Your task to perform on an android device: What's the weather going to be this weekend? Image 0: 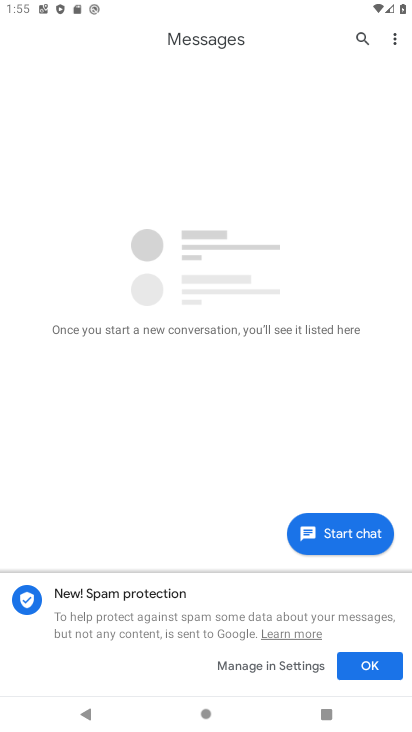
Step 0: press home button
Your task to perform on an android device: What's the weather going to be this weekend? Image 1: 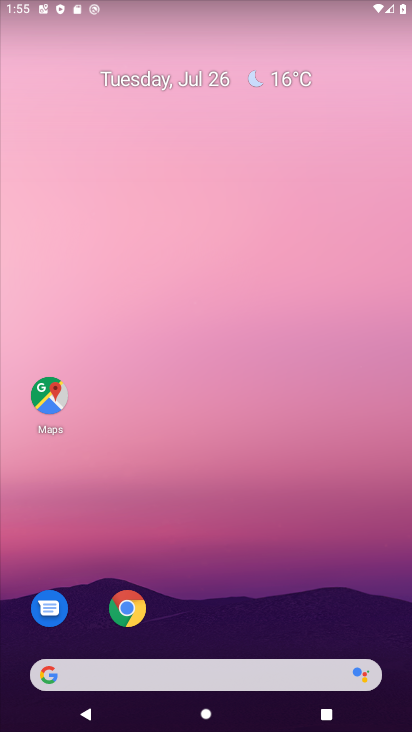
Step 1: drag from (280, 592) to (243, 114)
Your task to perform on an android device: What's the weather going to be this weekend? Image 2: 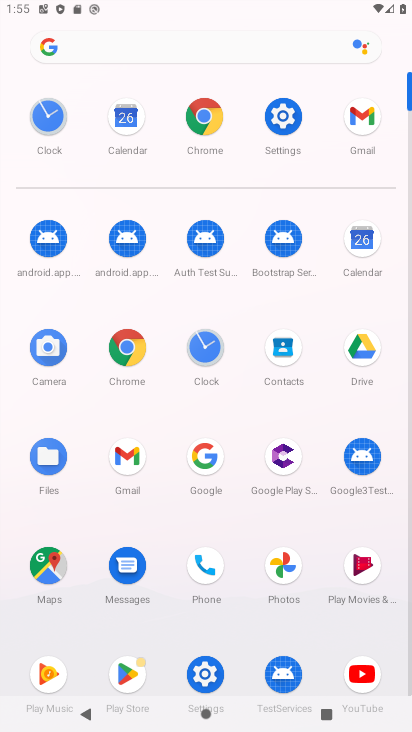
Step 2: click (363, 227)
Your task to perform on an android device: What's the weather going to be this weekend? Image 3: 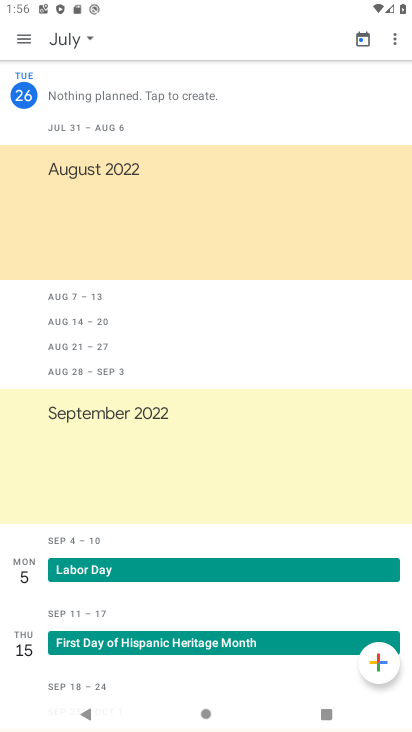
Step 3: task complete